Your task to perform on an android device: What's the weather today? Image 0: 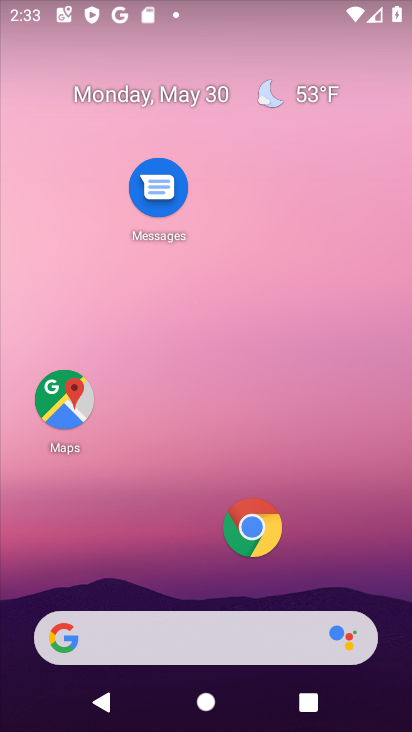
Step 0: drag from (197, 567) to (281, 193)
Your task to perform on an android device: What's the weather today? Image 1: 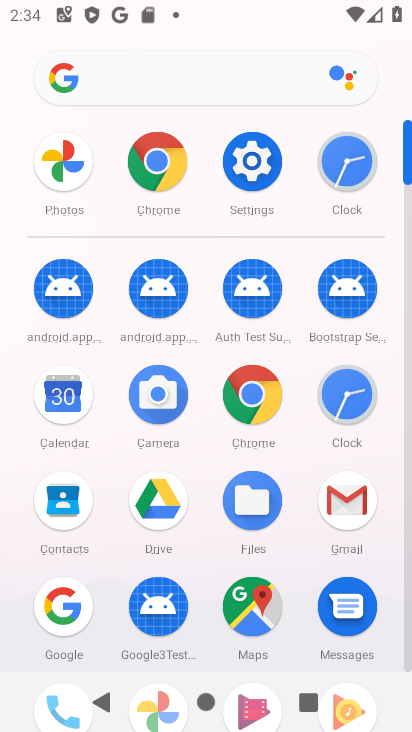
Step 1: click (72, 617)
Your task to perform on an android device: What's the weather today? Image 2: 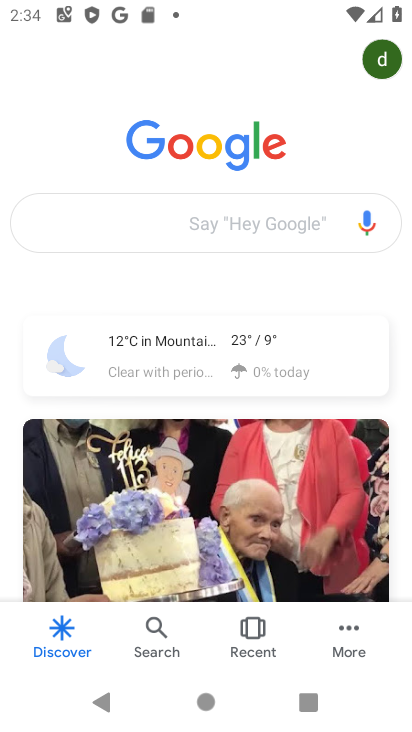
Step 2: click (172, 354)
Your task to perform on an android device: What's the weather today? Image 3: 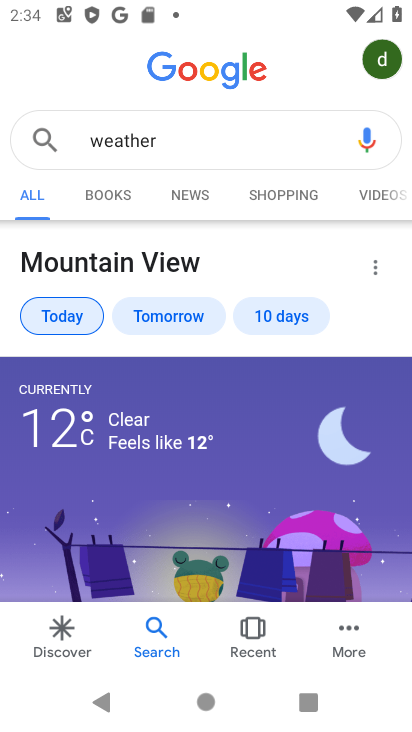
Step 3: task complete